Your task to perform on an android device: Search for pizza restaurants on Maps Image 0: 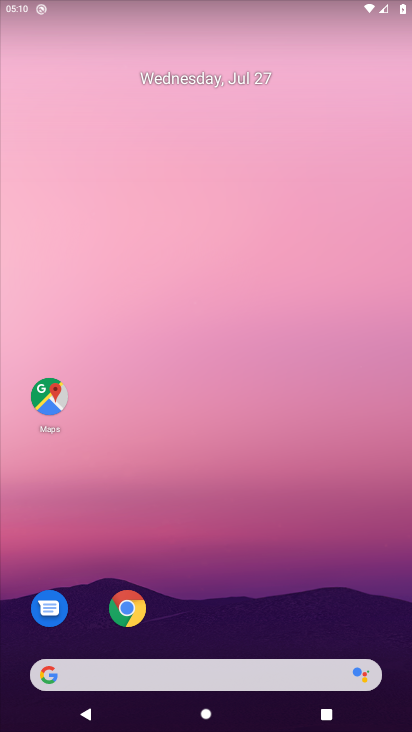
Step 0: press home button
Your task to perform on an android device: Search for pizza restaurants on Maps Image 1: 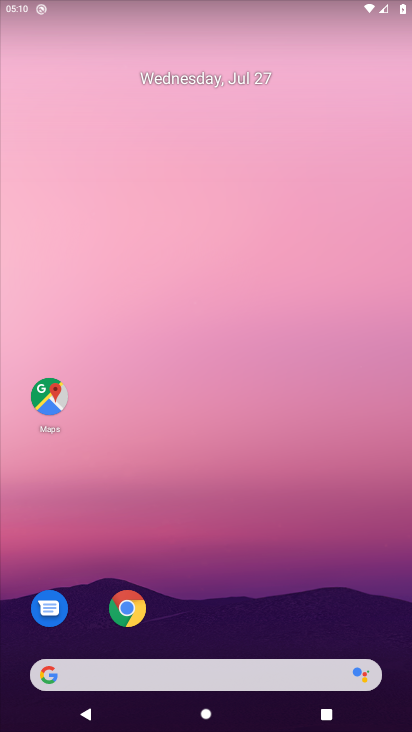
Step 1: drag from (252, 622) to (280, 10)
Your task to perform on an android device: Search for pizza restaurants on Maps Image 2: 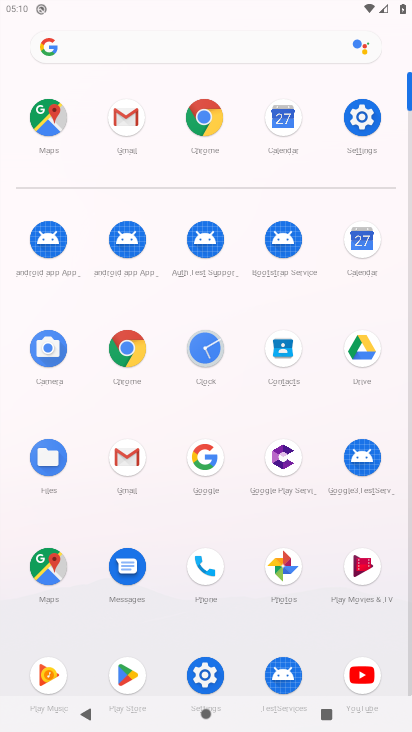
Step 2: click (44, 118)
Your task to perform on an android device: Search for pizza restaurants on Maps Image 3: 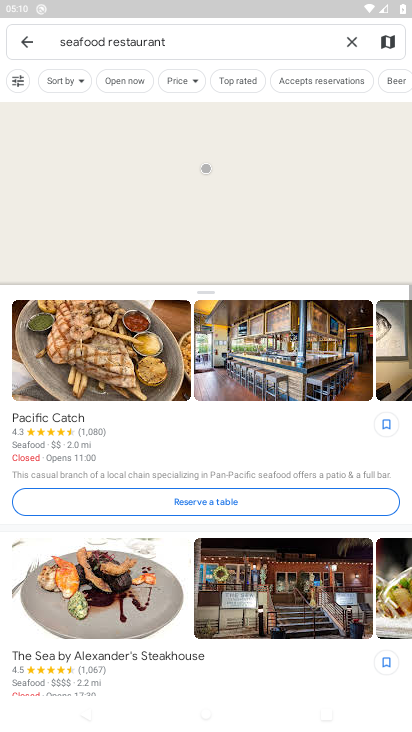
Step 3: click (21, 44)
Your task to perform on an android device: Search for pizza restaurants on Maps Image 4: 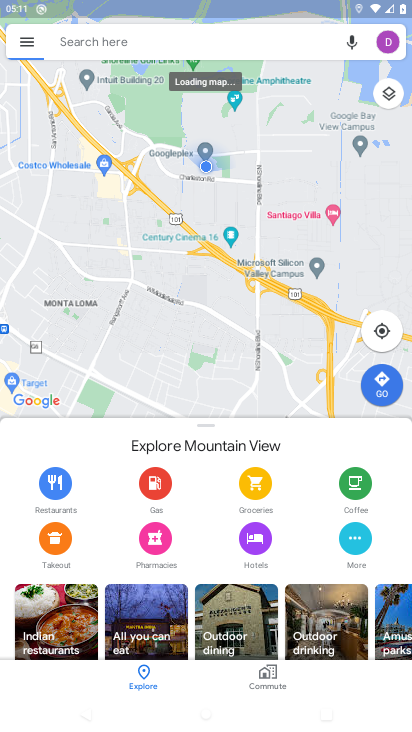
Step 4: click (96, 36)
Your task to perform on an android device: Search for pizza restaurants on Maps Image 5: 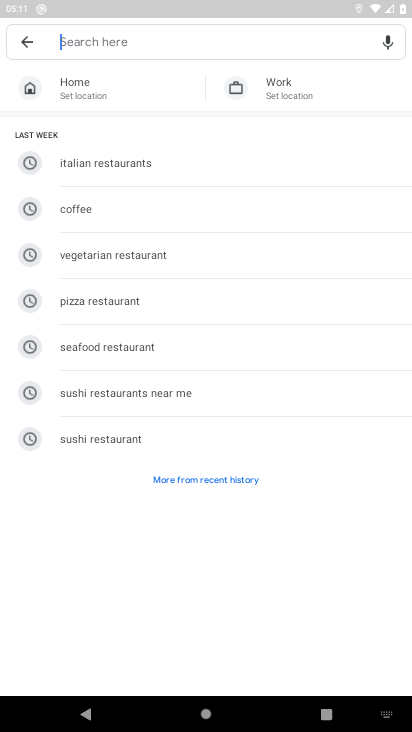
Step 5: click (101, 304)
Your task to perform on an android device: Search for pizza restaurants on Maps Image 6: 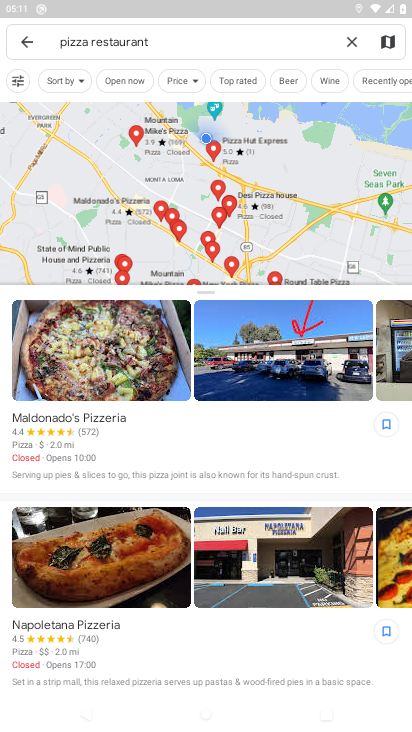
Step 6: task complete